Your task to perform on an android device: Open eBay Image 0: 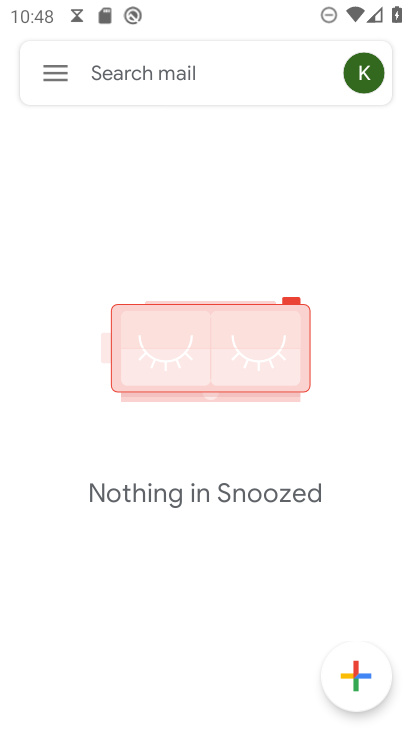
Step 0: press home button
Your task to perform on an android device: Open eBay Image 1: 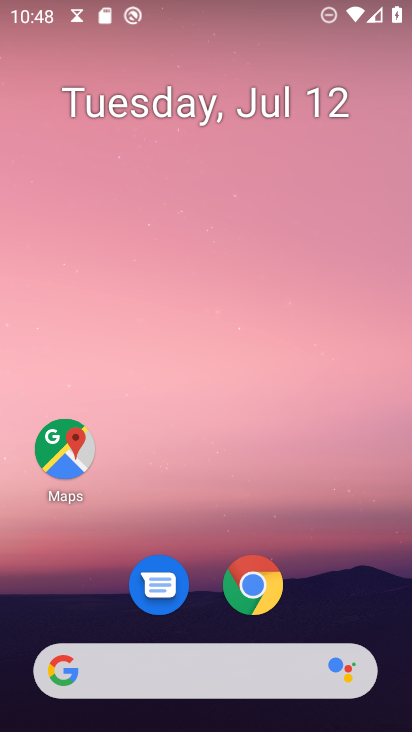
Step 1: click (248, 588)
Your task to perform on an android device: Open eBay Image 2: 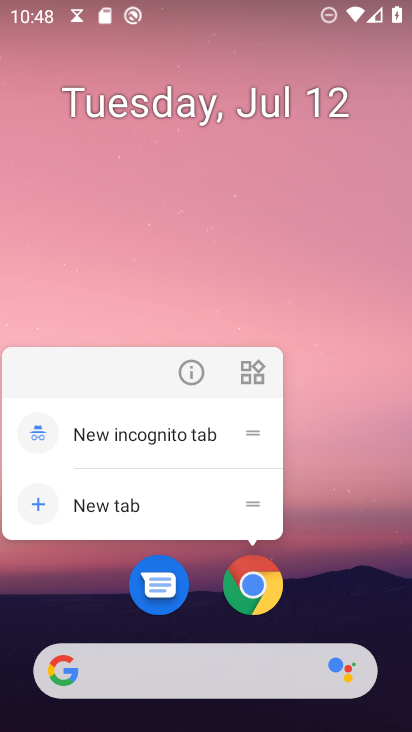
Step 2: click (259, 581)
Your task to perform on an android device: Open eBay Image 3: 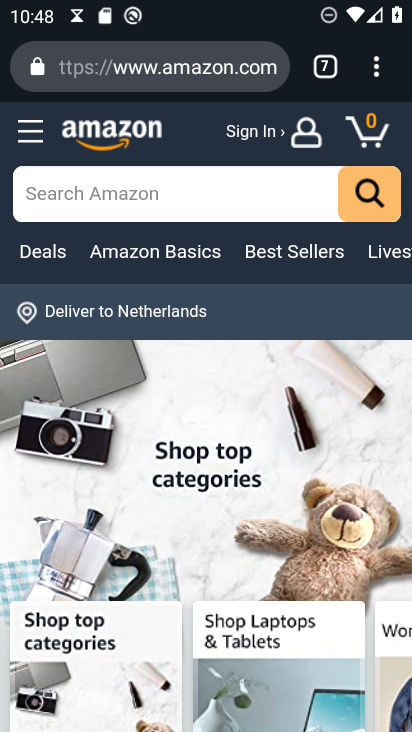
Step 3: drag from (374, 73) to (219, 138)
Your task to perform on an android device: Open eBay Image 4: 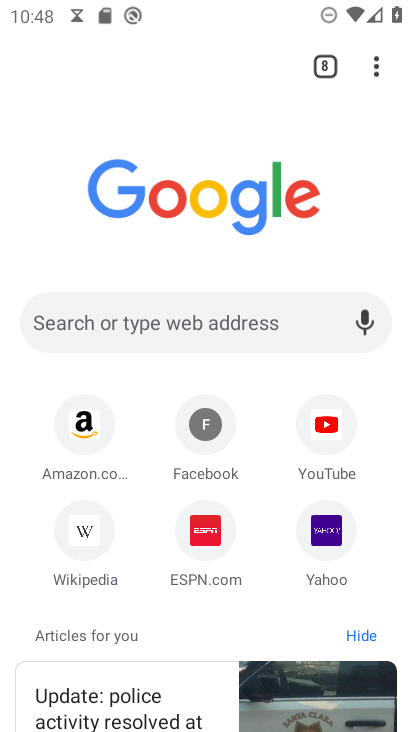
Step 4: click (138, 317)
Your task to perform on an android device: Open eBay Image 5: 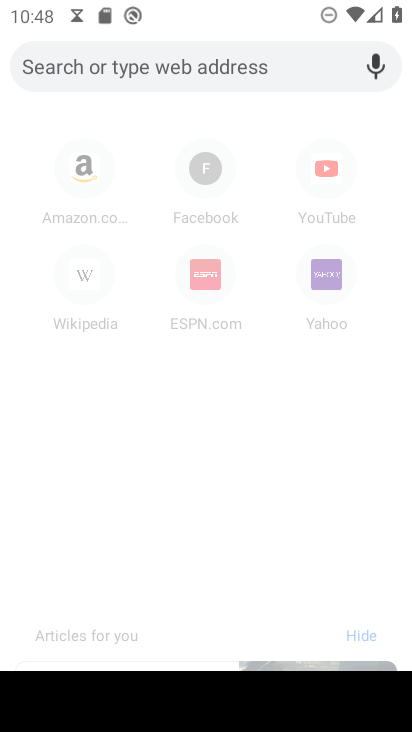
Step 5: type "ebay"
Your task to perform on an android device: Open eBay Image 6: 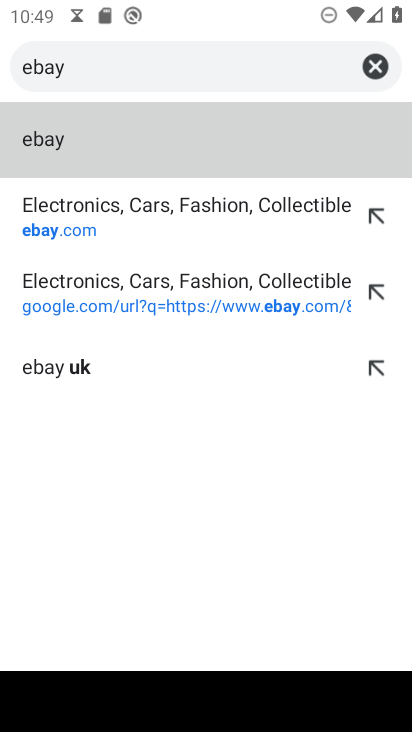
Step 6: click (238, 209)
Your task to perform on an android device: Open eBay Image 7: 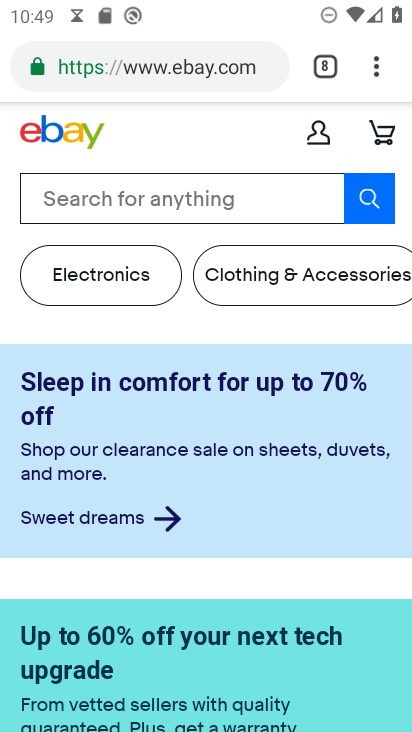
Step 7: task complete